Your task to perform on an android device: stop showing notifications on the lock screen Image 0: 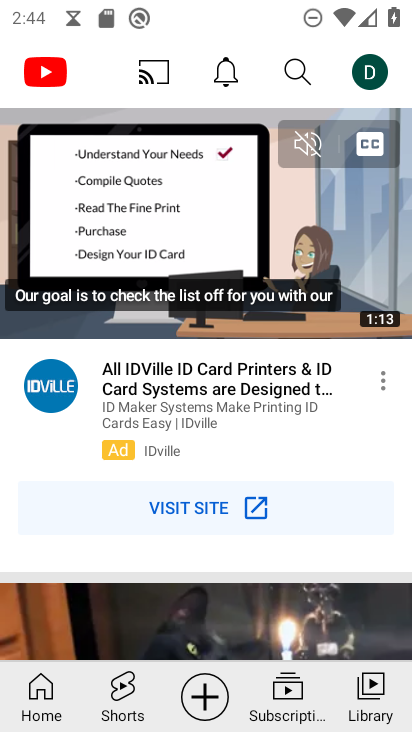
Step 0: press home button
Your task to perform on an android device: stop showing notifications on the lock screen Image 1: 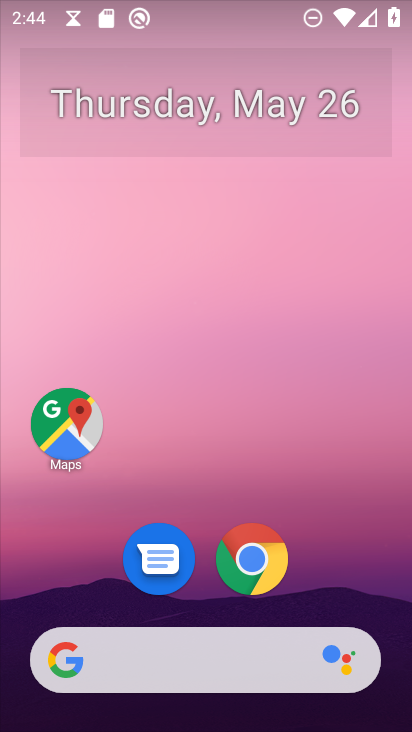
Step 1: drag from (169, 674) to (350, 171)
Your task to perform on an android device: stop showing notifications on the lock screen Image 2: 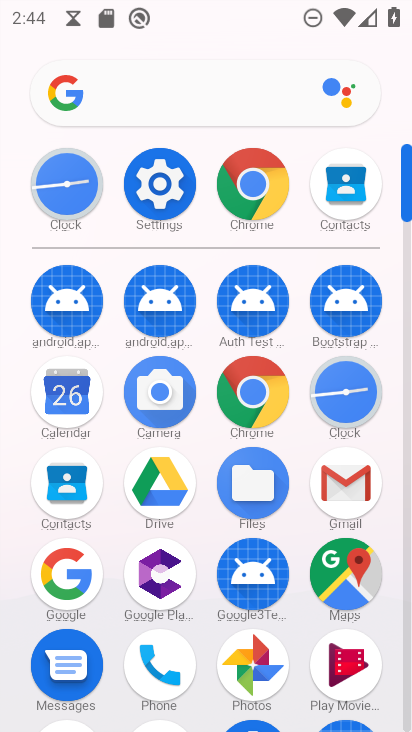
Step 2: click (178, 180)
Your task to perform on an android device: stop showing notifications on the lock screen Image 3: 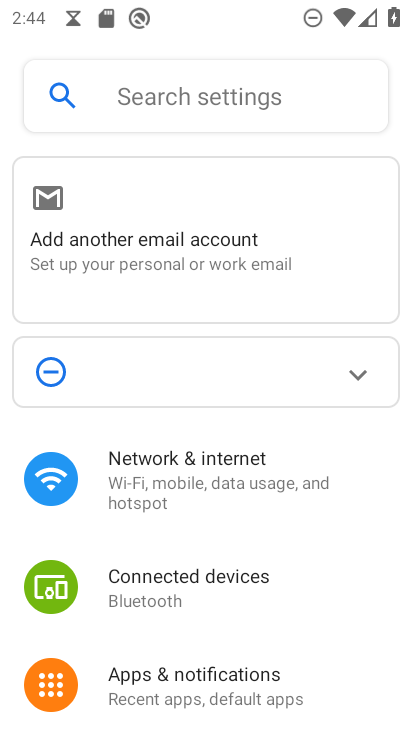
Step 3: click (247, 676)
Your task to perform on an android device: stop showing notifications on the lock screen Image 4: 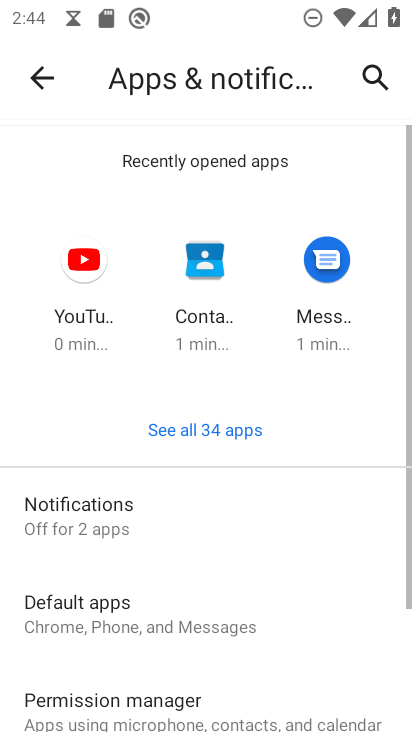
Step 4: click (130, 521)
Your task to perform on an android device: stop showing notifications on the lock screen Image 5: 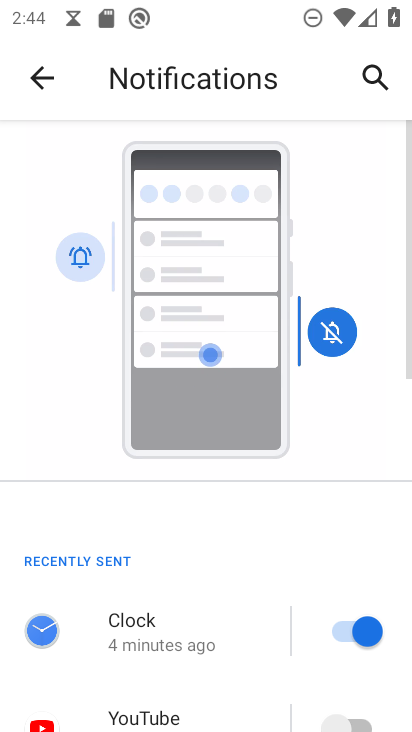
Step 5: drag from (278, 660) to (353, 230)
Your task to perform on an android device: stop showing notifications on the lock screen Image 6: 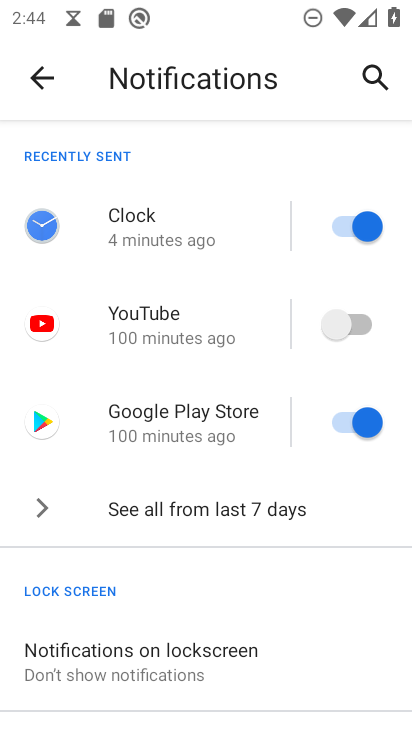
Step 6: click (204, 659)
Your task to perform on an android device: stop showing notifications on the lock screen Image 7: 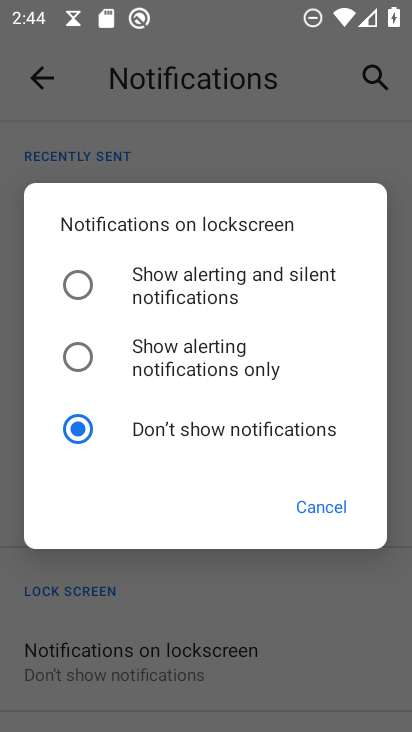
Step 7: task complete